Your task to perform on an android device: Open the web browser Image 0: 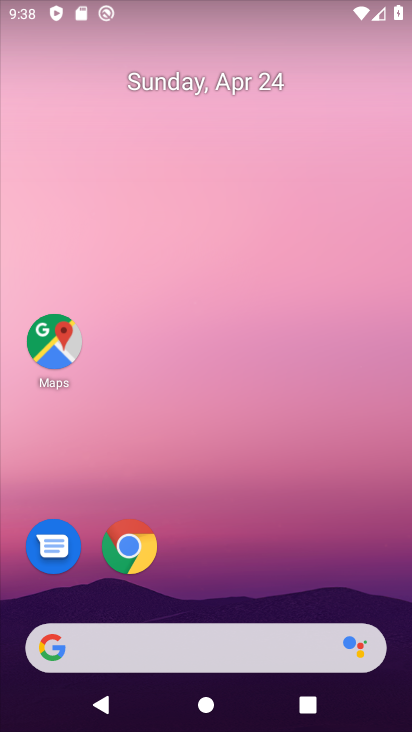
Step 0: click (120, 538)
Your task to perform on an android device: Open the web browser Image 1: 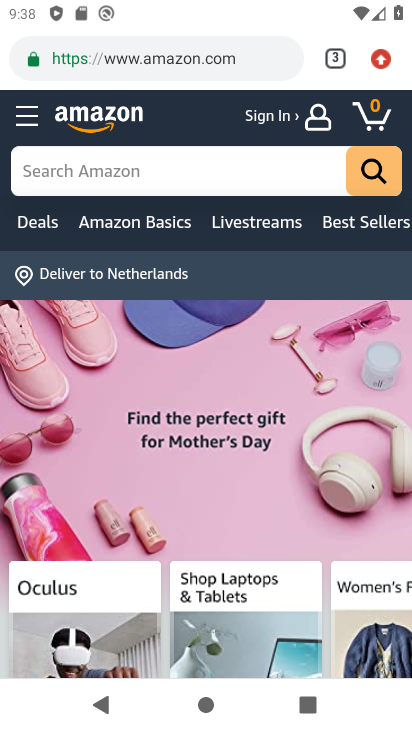
Step 1: task complete